Your task to perform on an android device: toggle notifications settings in the gmail app Image 0: 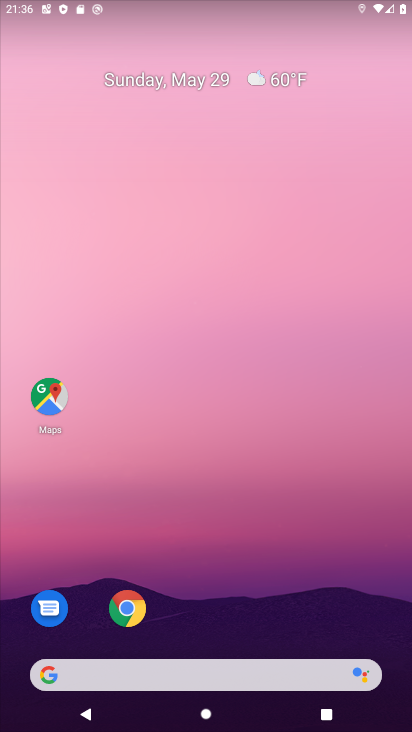
Step 0: drag from (377, 606) to (351, 230)
Your task to perform on an android device: toggle notifications settings in the gmail app Image 1: 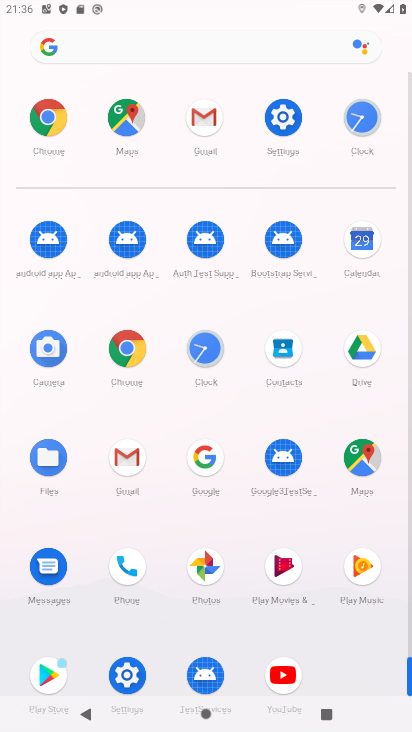
Step 1: click (131, 461)
Your task to perform on an android device: toggle notifications settings in the gmail app Image 2: 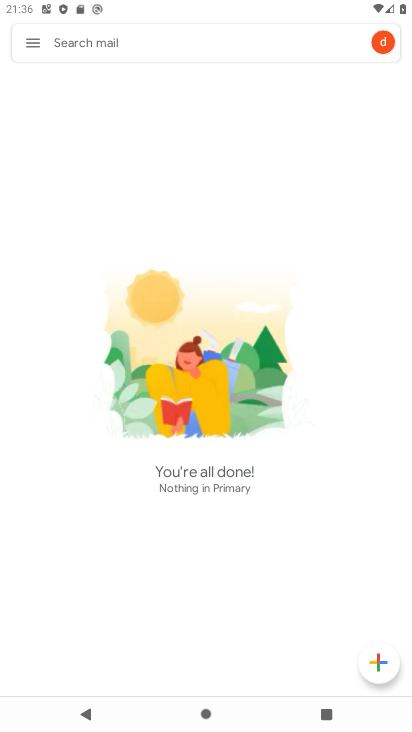
Step 2: click (33, 46)
Your task to perform on an android device: toggle notifications settings in the gmail app Image 3: 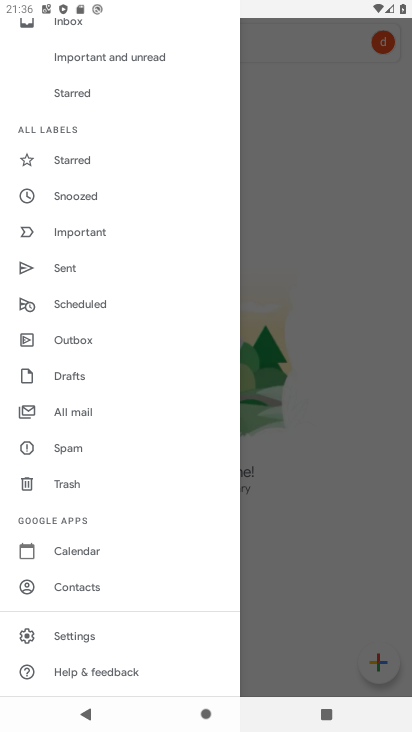
Step 3: click (89, 639)
Your task to perform on an android device: toggle notifications settings in the gmail app Image 4: 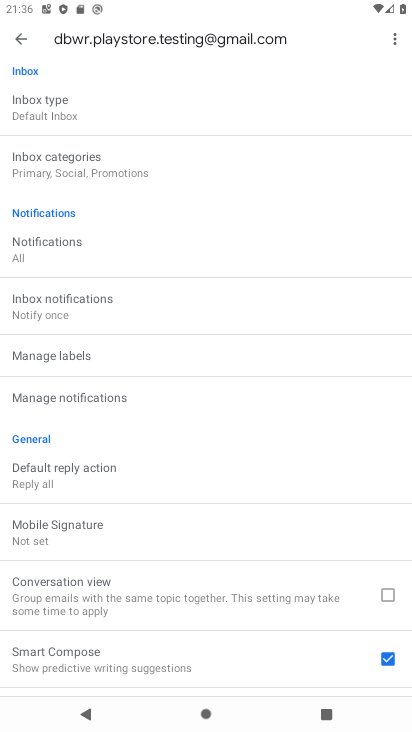
Step 4: click (140, 400)
Your task to perform on an android device: toggle notifications settings in the gmail app Image 5: 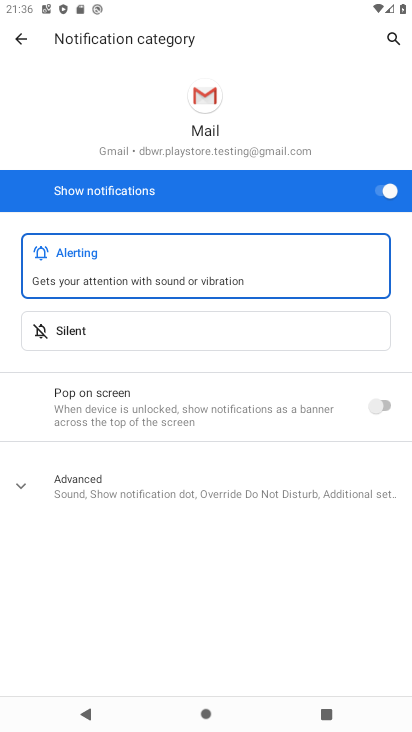
Step 5: click (387, 197)
Your task to perform on an android device: toggle notifications settings in the gmail app Image 6: 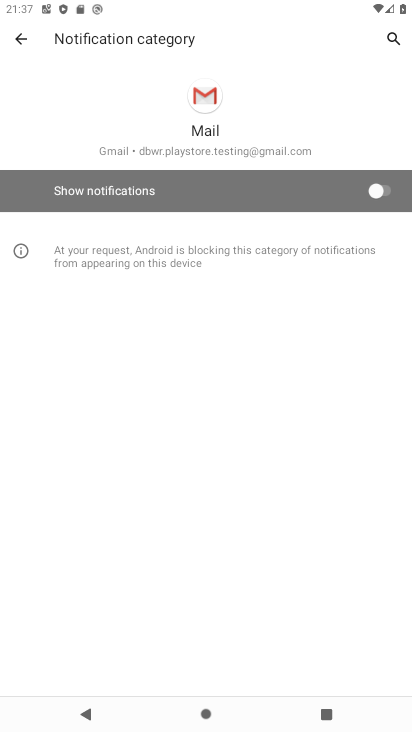
Step 6: task complete